Your task to perform on an android device: find snoozed emails in the gmail app Image 0: 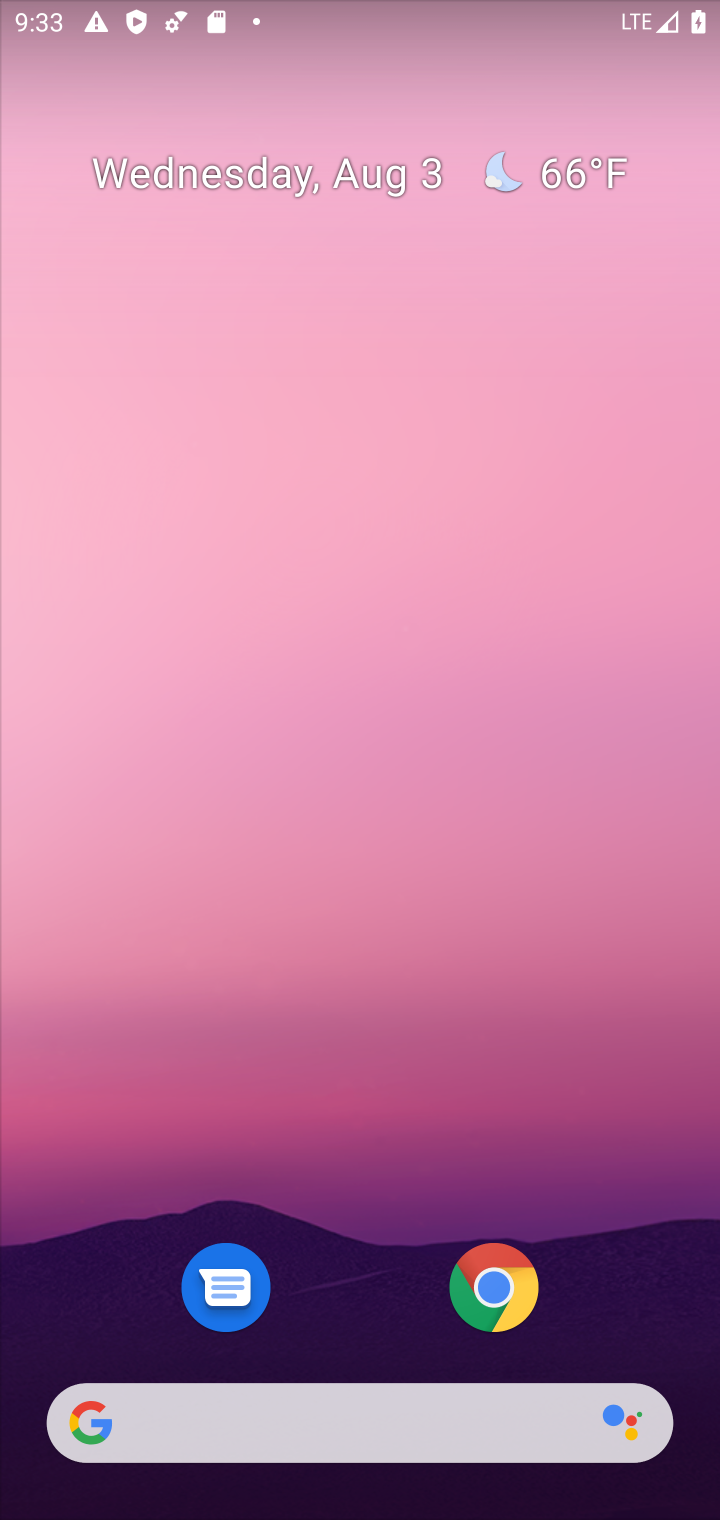
Step 0: drag from (397, 1326) to (627, 17)
Your task to perform on an android device: find snoozed emails in the gmail app Image 1: 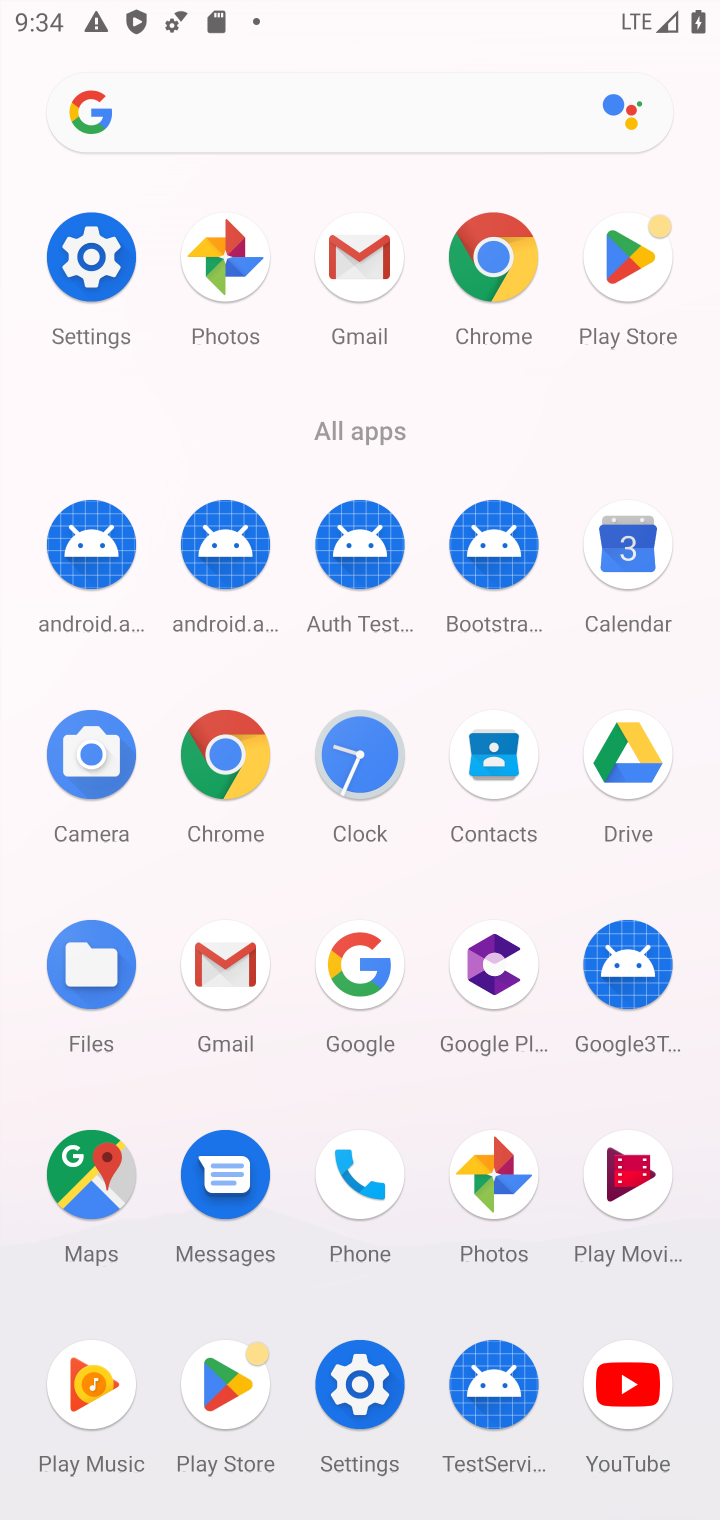
Step 1: click (234, 964)
Your task to perform on an android device: find snoozed emails in the gmail app Image 2: 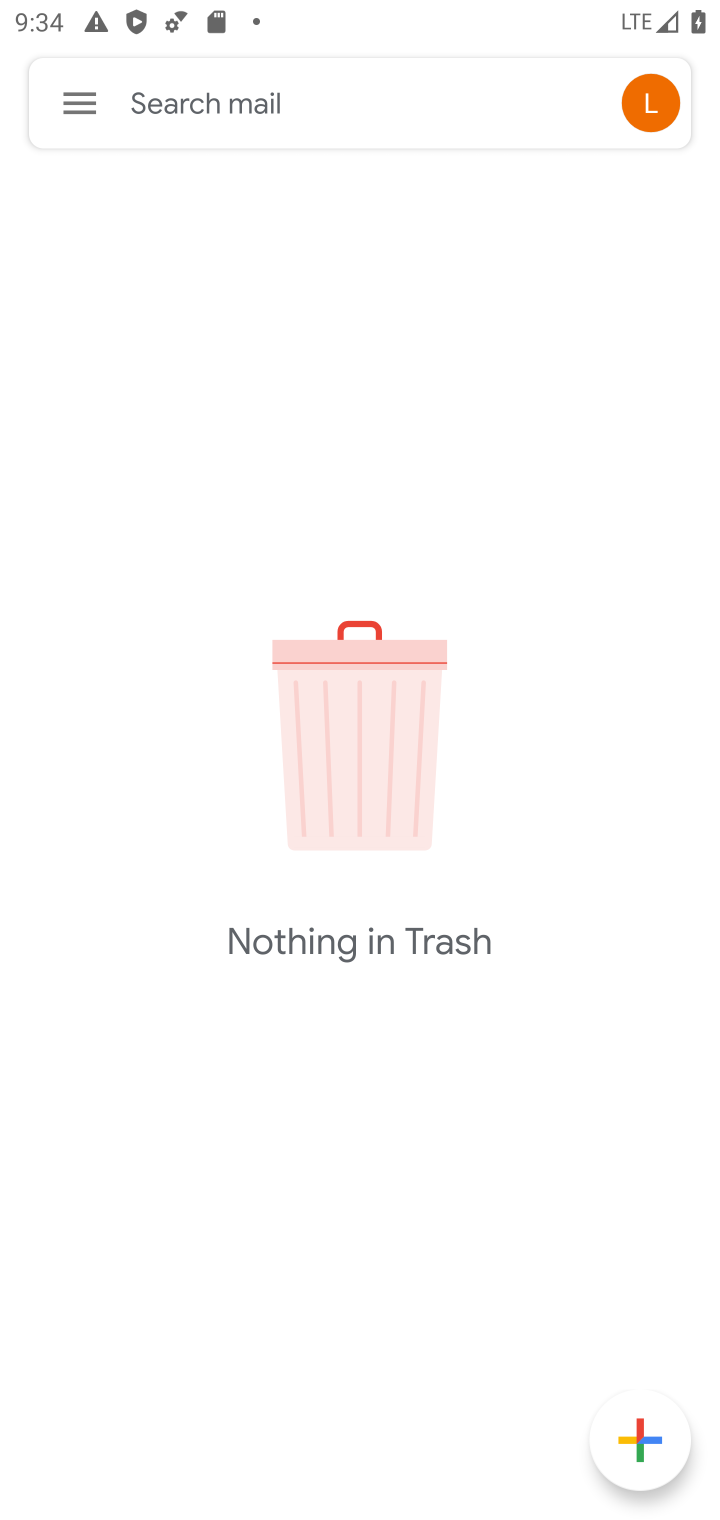
Step 2: click (69, 108)
Your task to perform on an android device: find snoozed emails in the gmail app Image 3: 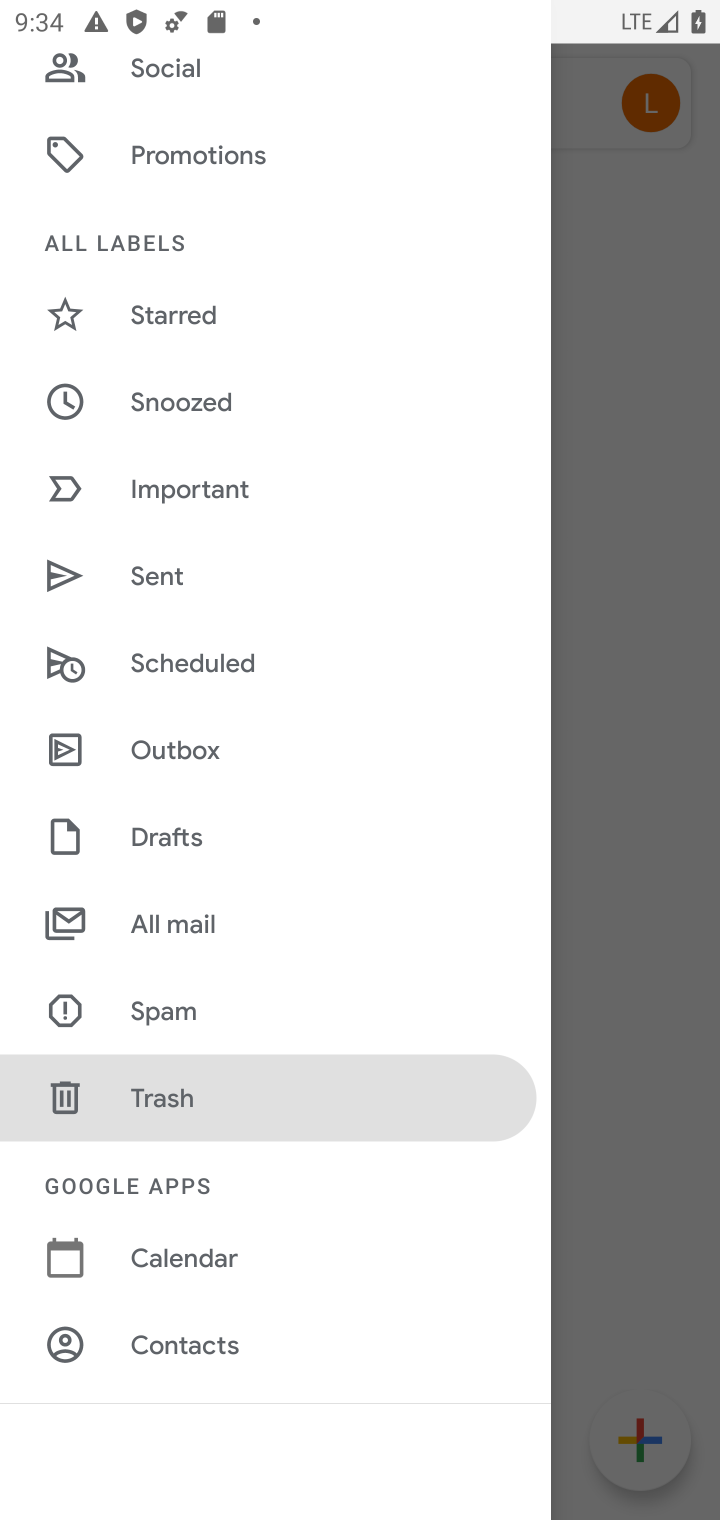
Step 3: click (228, 395)
Your task to perform on an android device: find snoozed emails in the gmail app Image 4: 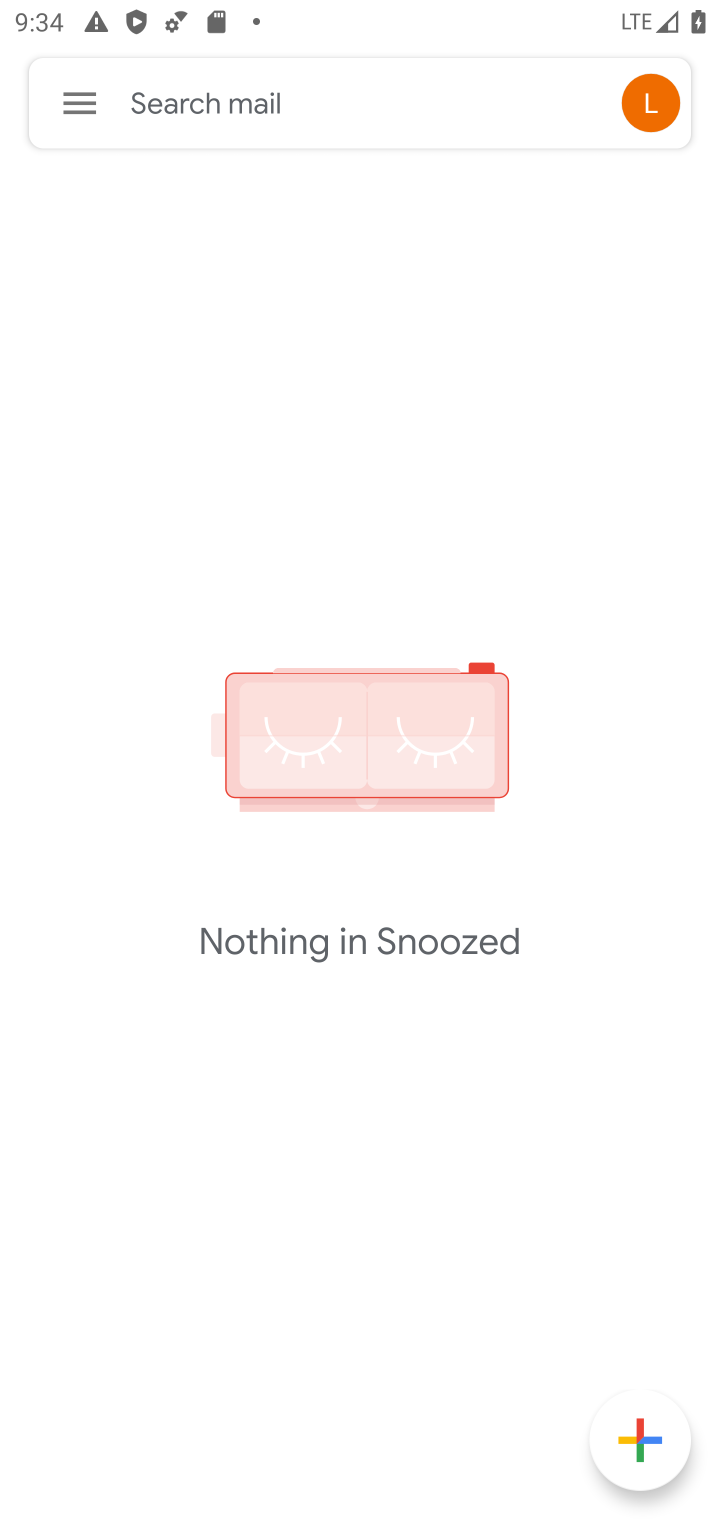
Step 4: task complete